Your task to perform on an android device: Search for nike dri-fit shirts on Nike Image 0: 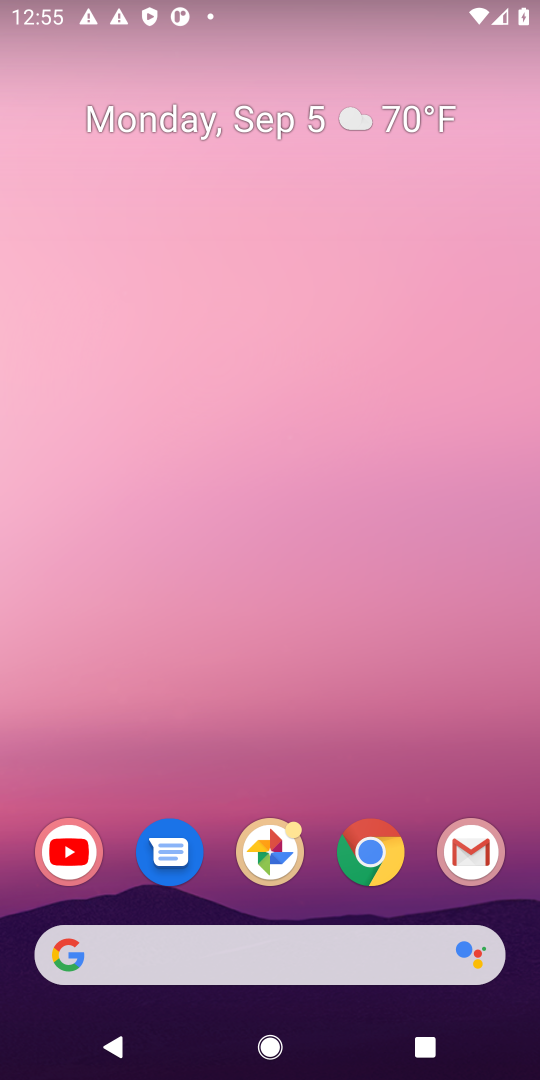
Step 0: click (371, 858)
Your task to perform on an android device: Search for nike dri-fit shirts on Nike Image 1: 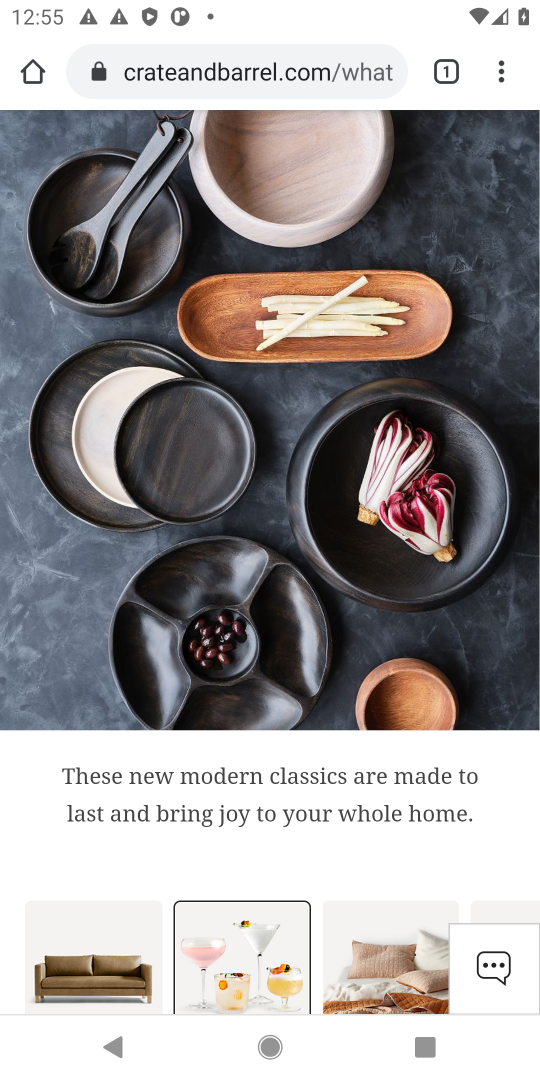
Step 1: click (327, 43)
Your task to perform on an android device: Search for nike dri-fit shirts on Nike Image 2: 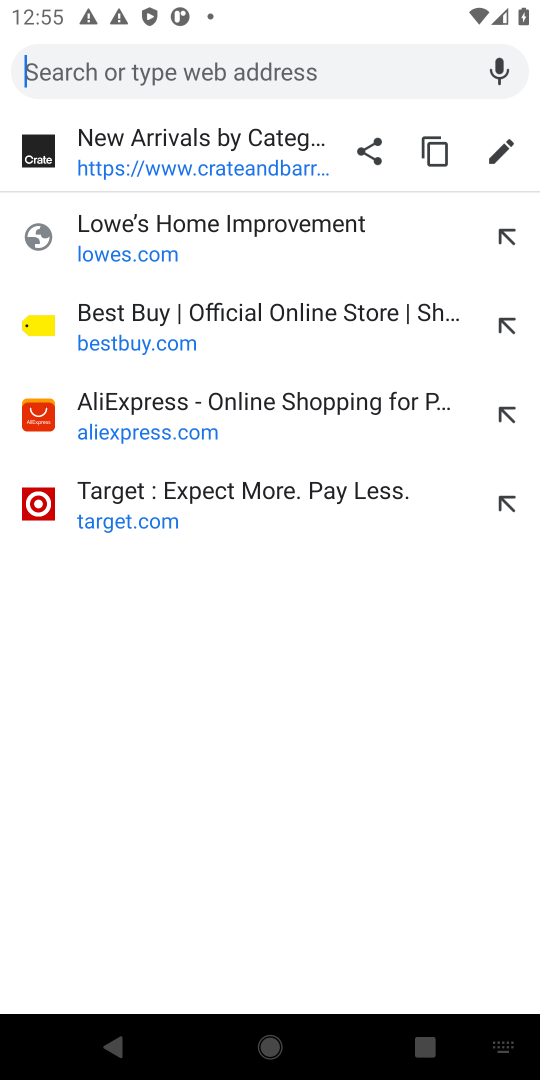
Step 2: type "Nike"
Your task to perform on an android device: Search for nike dri-fit shirts on Nike Image 3: 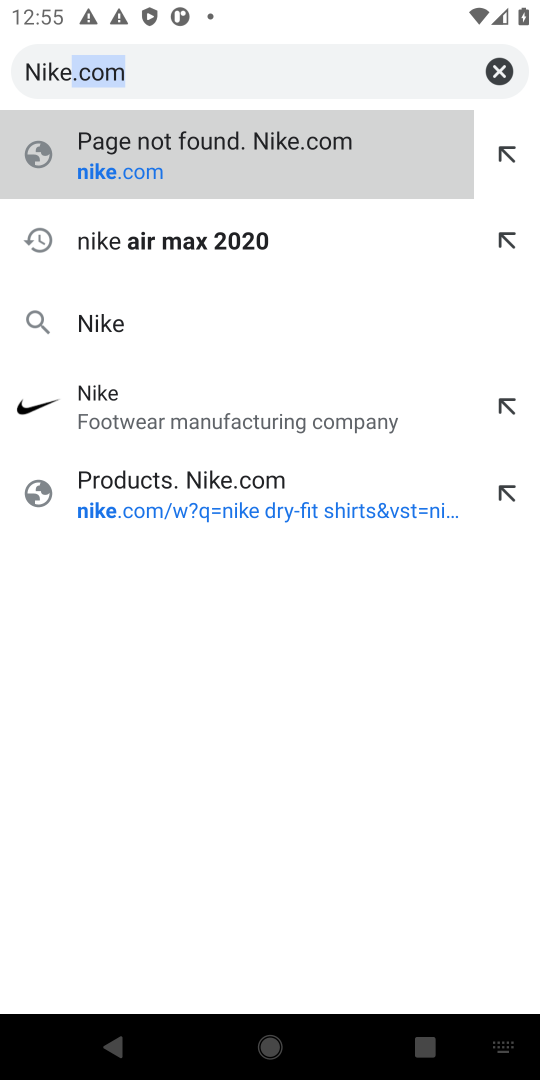
Step 3: click (136, 150)
Your task to perform on an android device: Search for nike dri-fit shirts on Nike Image 4: 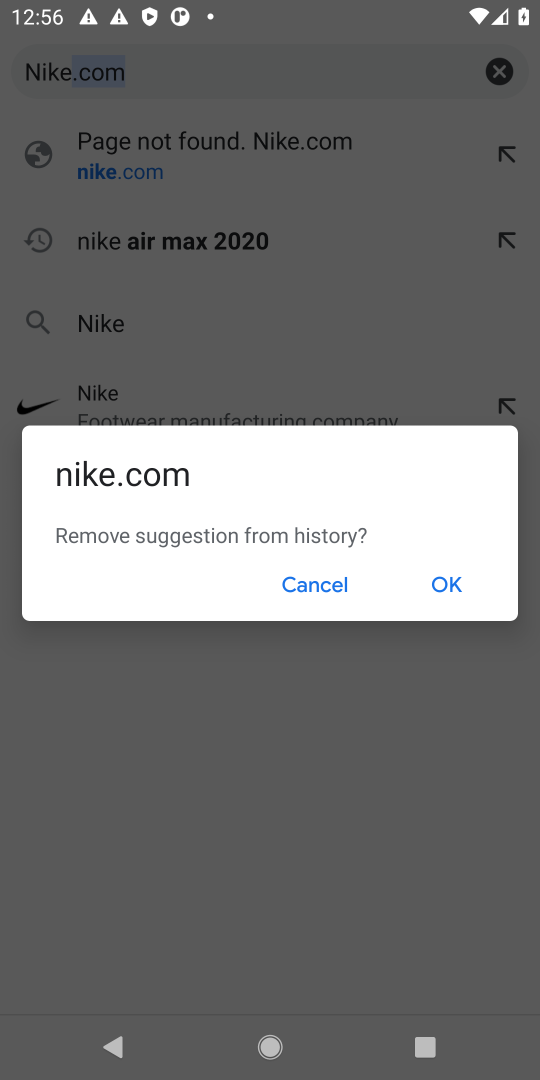
Step 4: click (319, 583)
Your task to perform on an android device: Search for nike dri-fit shirts on Nike Image 5: 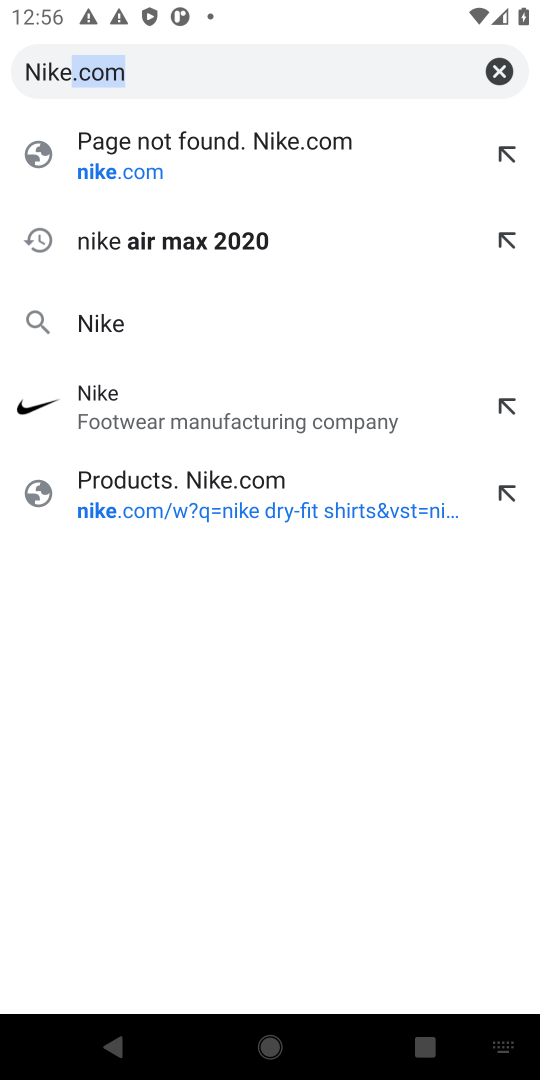
Step 5: click (108, 388)
Your task to perform on an android device: Search for nike dri-fit shirts on Nike Image 6: 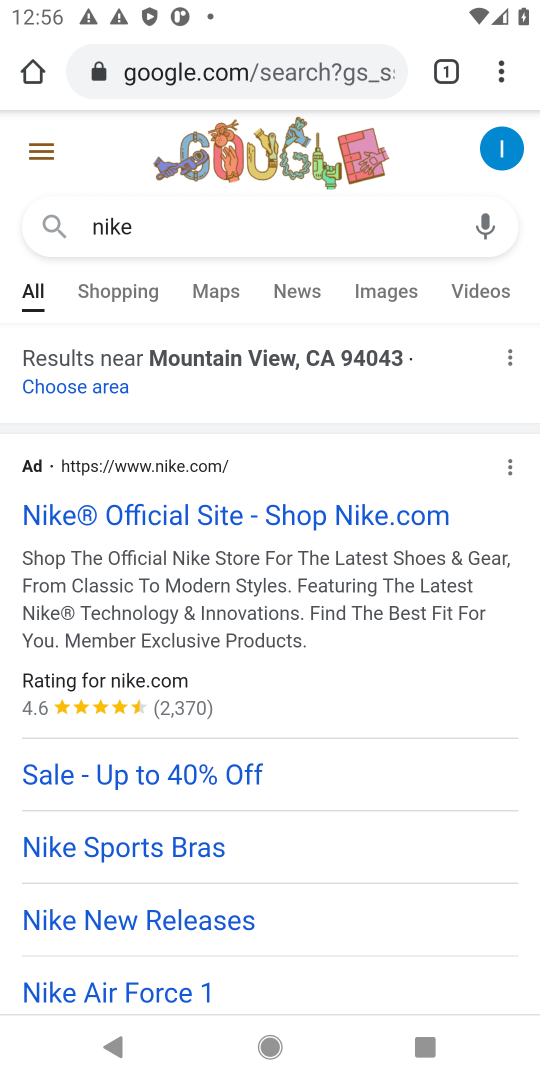
Step 6: click (142, 488)
Your task to perform on an android device: Search for nike dri-fit shirts on Nike Image 7: 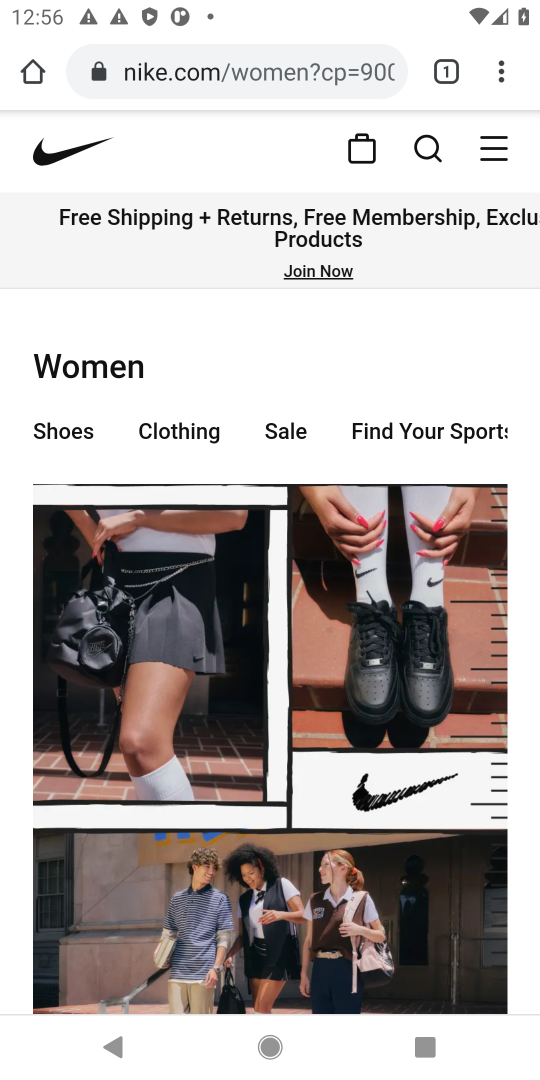
Step 7: click (427, 144)
Your task to perform on an android device: Search for nike dri-fit shirts on Nike Image 8: 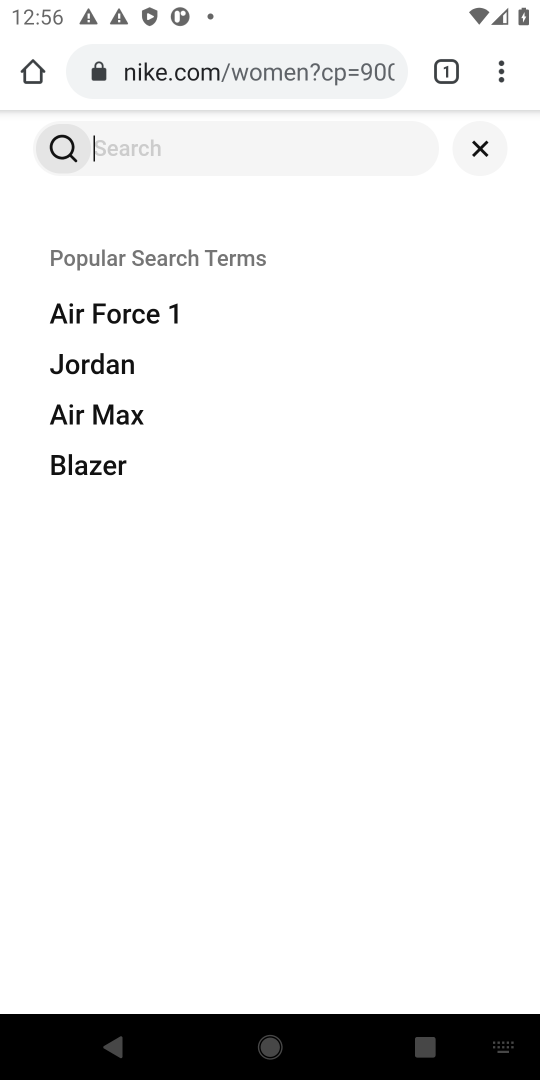
Step 8: type " nike dri-fit shirts"
Your task to perform on an android device: Search for nike dri-fit shirts on Nike Image 9: 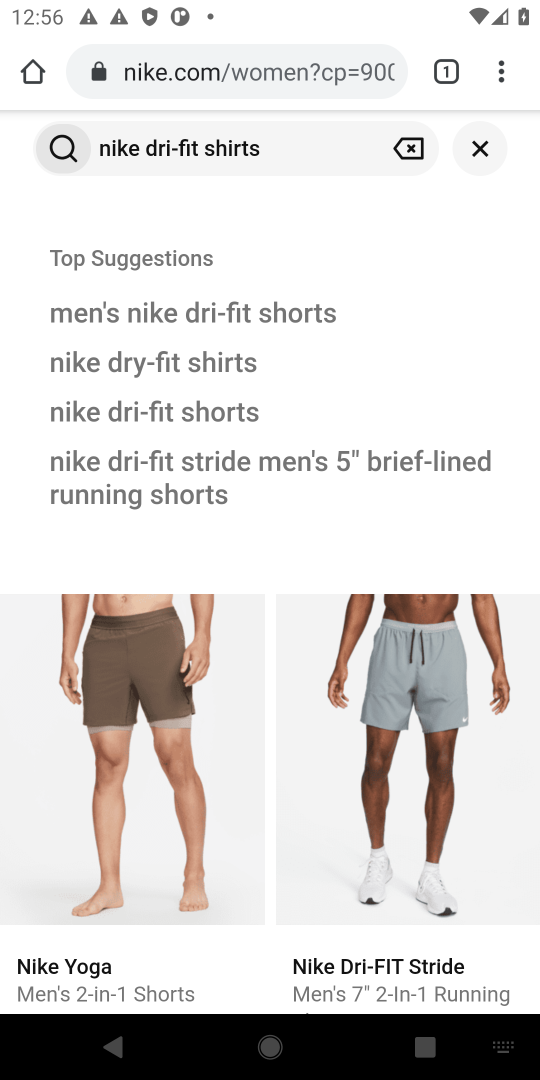
Step 9: click (138, 360)
Your task to perform on an android device: Search for nike dri-fit shirts on Nike Image 10: 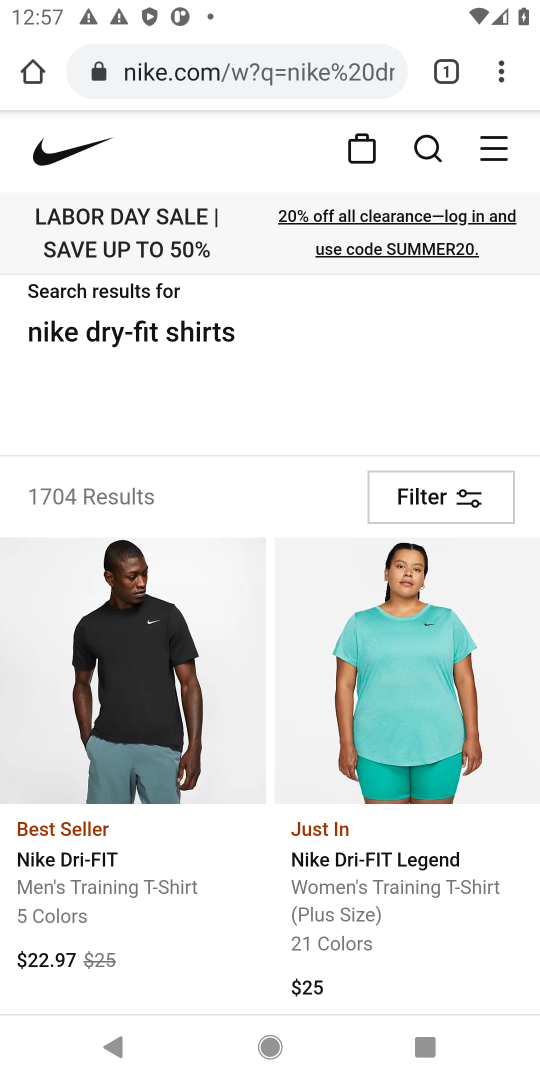
Step 10: task complete